Your task to perform on an android device: Show me productivity apps on the Play Store Image 0: 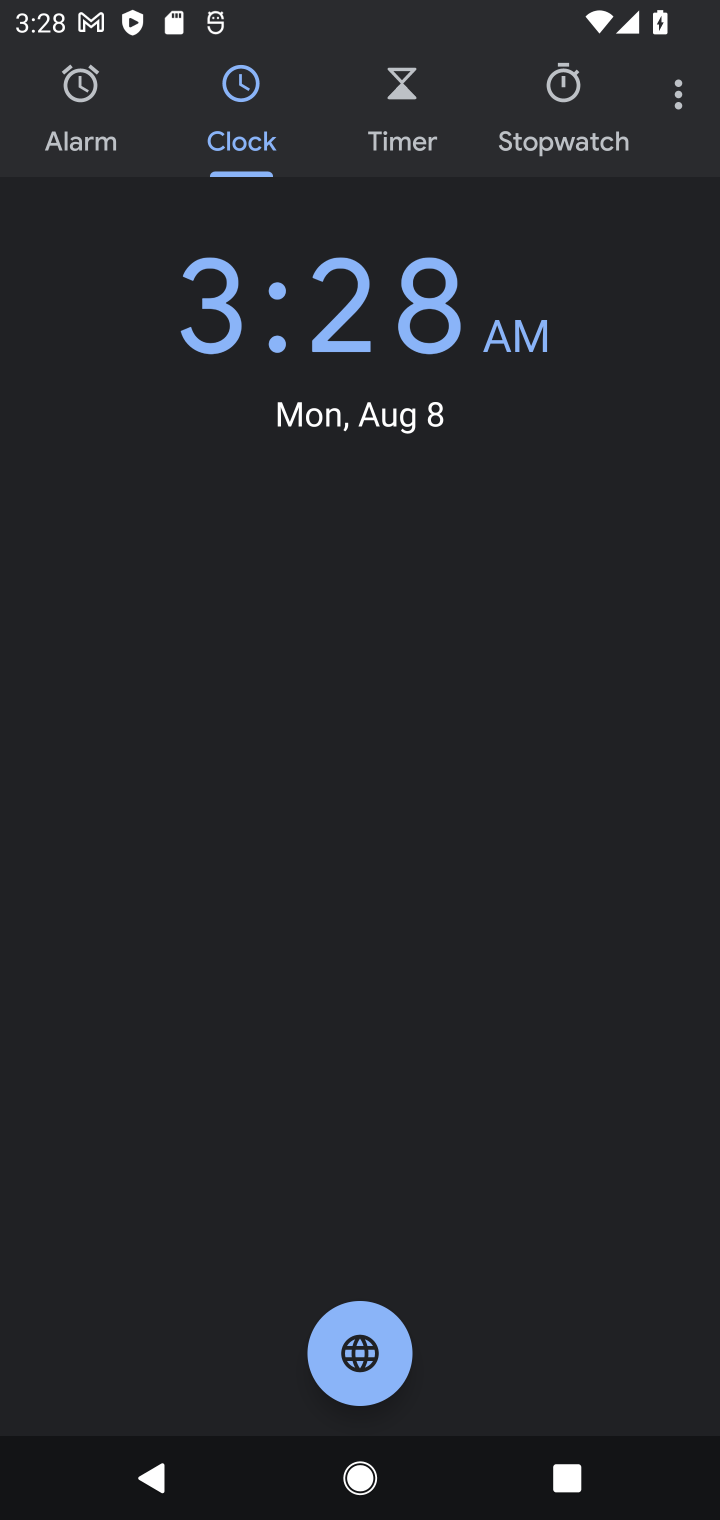
Step 0: press home button
Your task to perform on an android device: Show me productivity apps on the Play Store Image 1: 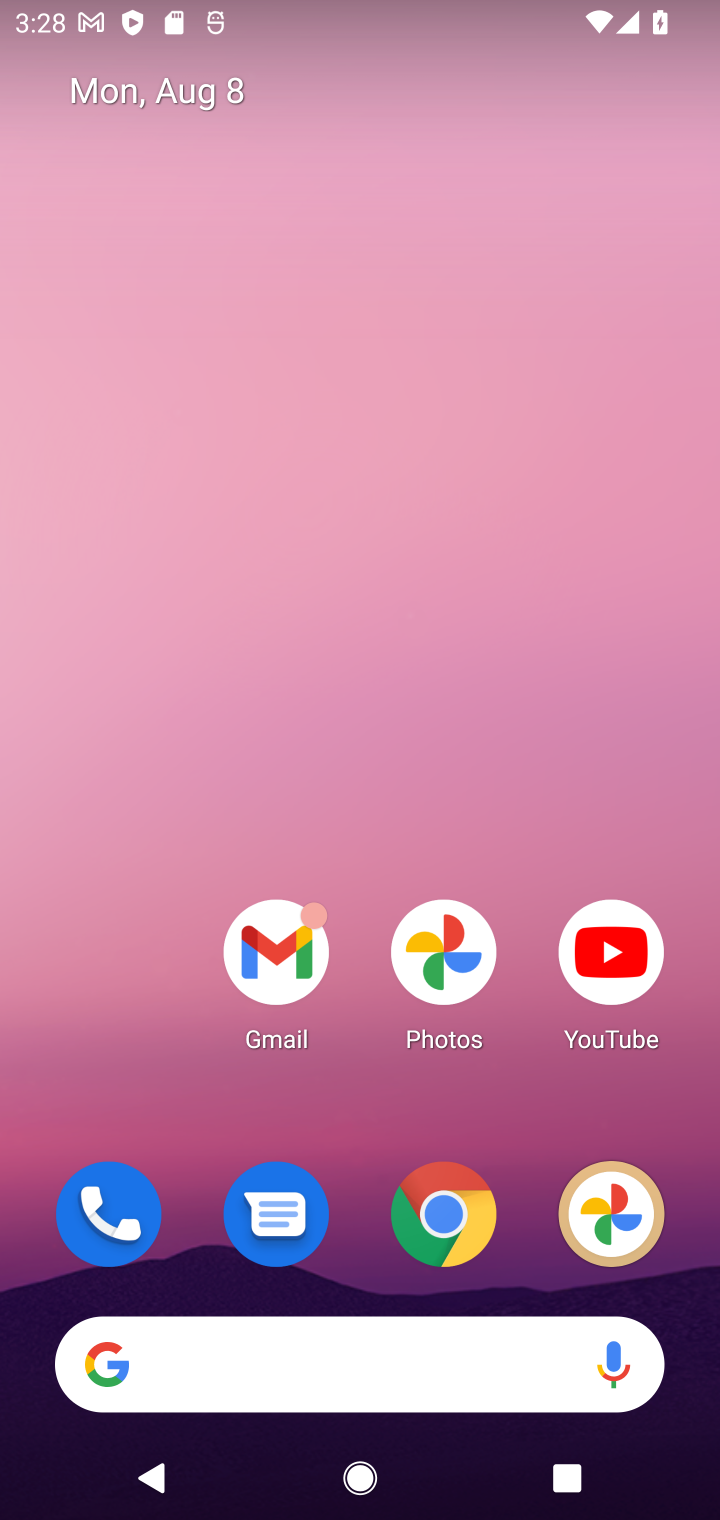
Step 1: drag from (365, 1279) to (376, 540)
Your task to perform on an android device: Show me productivity apps on the Play Store Image 2: 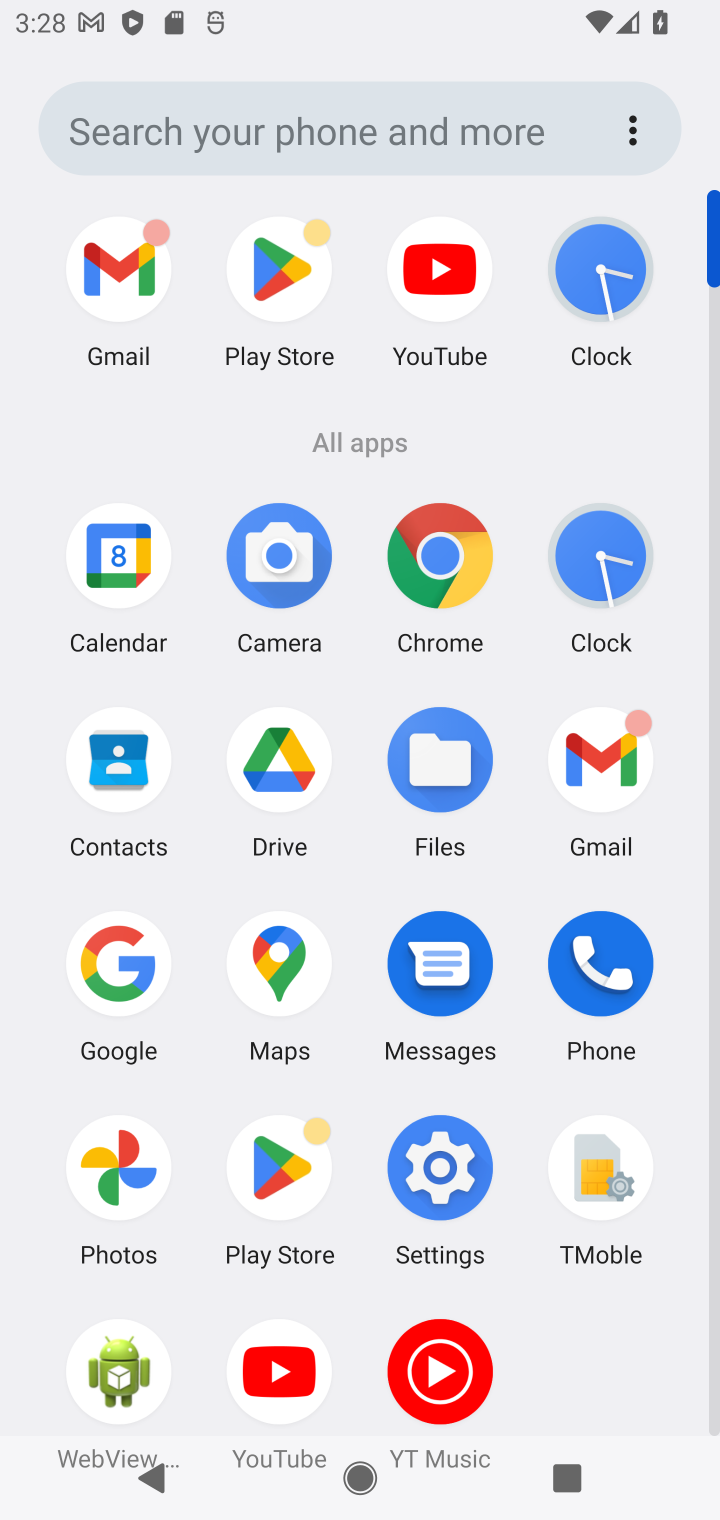
Step 2: click (290, 1179)
Your task to perform on an android device: Show me productivity apps on the Play Store Image 3: 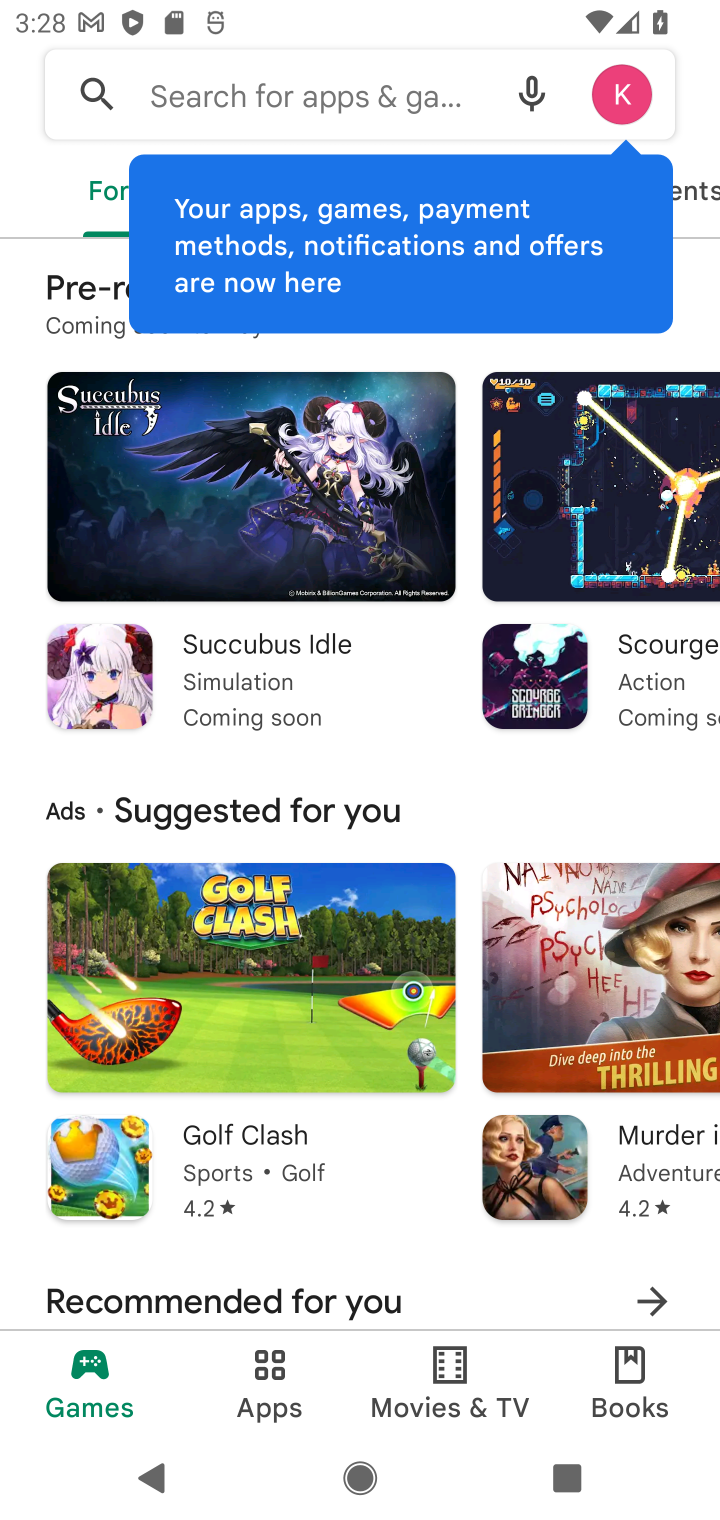
Step 3: click (262, 1384)
Your task to perform on an android device: Show me productivity apps on the Play Store Image 4: 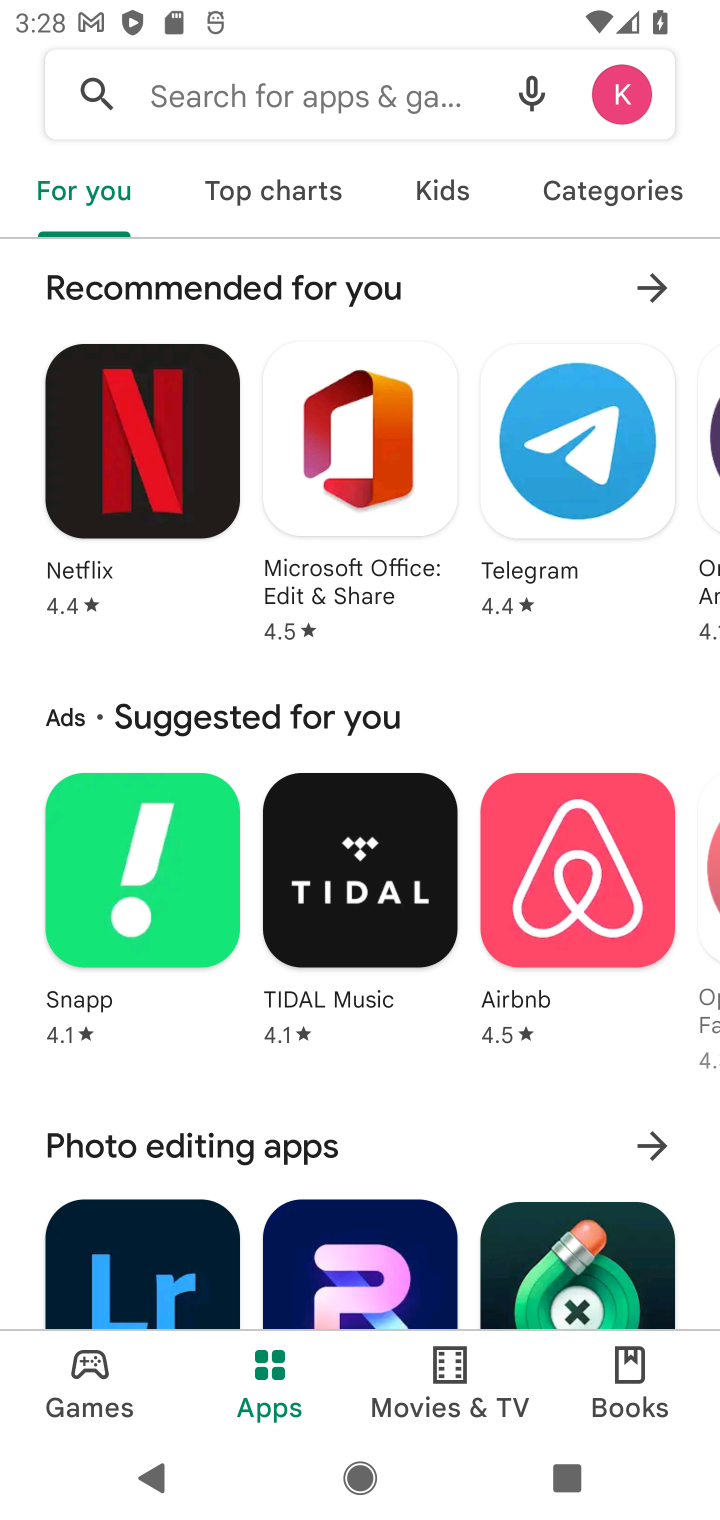
Step 4: click (563, 170)
Your task to perform on an android device: Show me productivity apps on the Play Store Image 5: 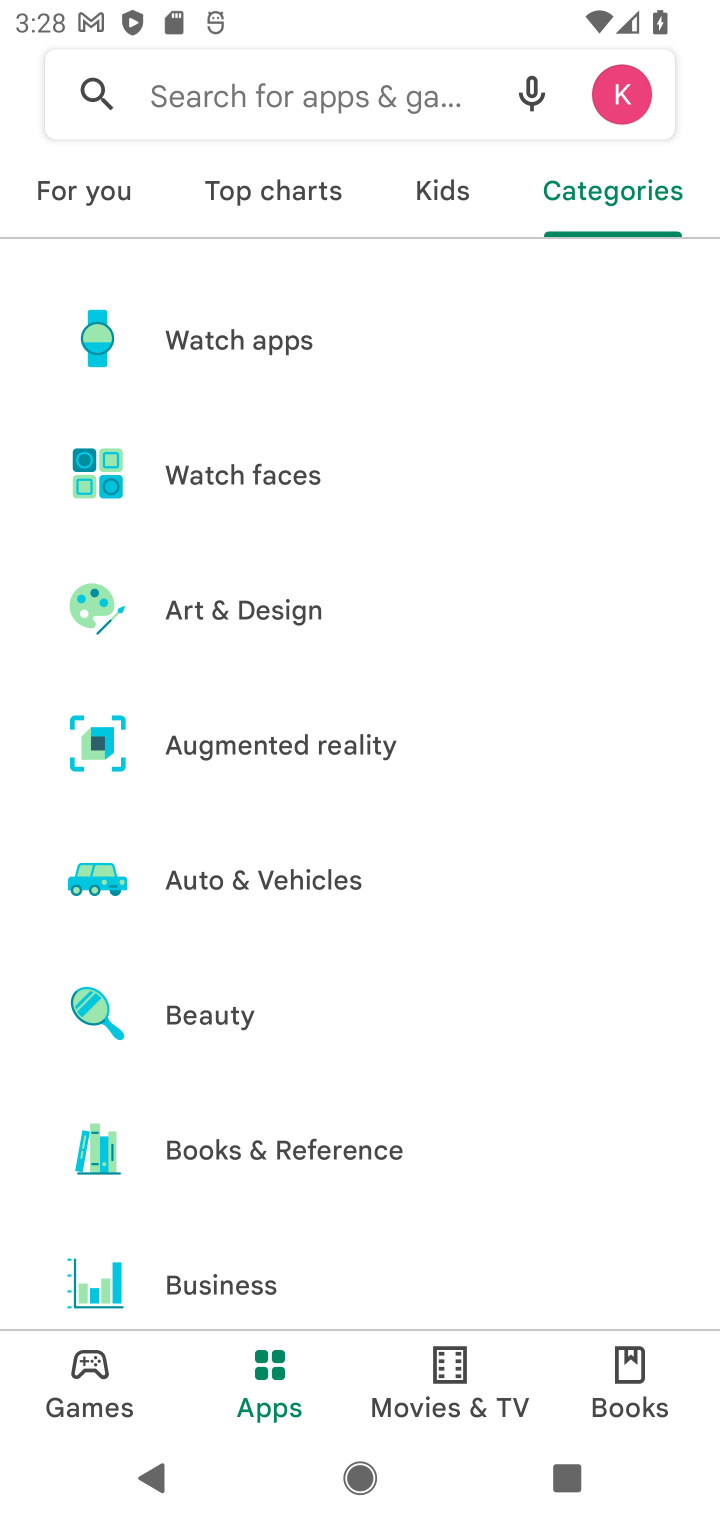
Step 5: drag from (222, 1067) to (222, 767)
Your task to perform on an android device: Show me productivity apps on the Play Store Image 6: 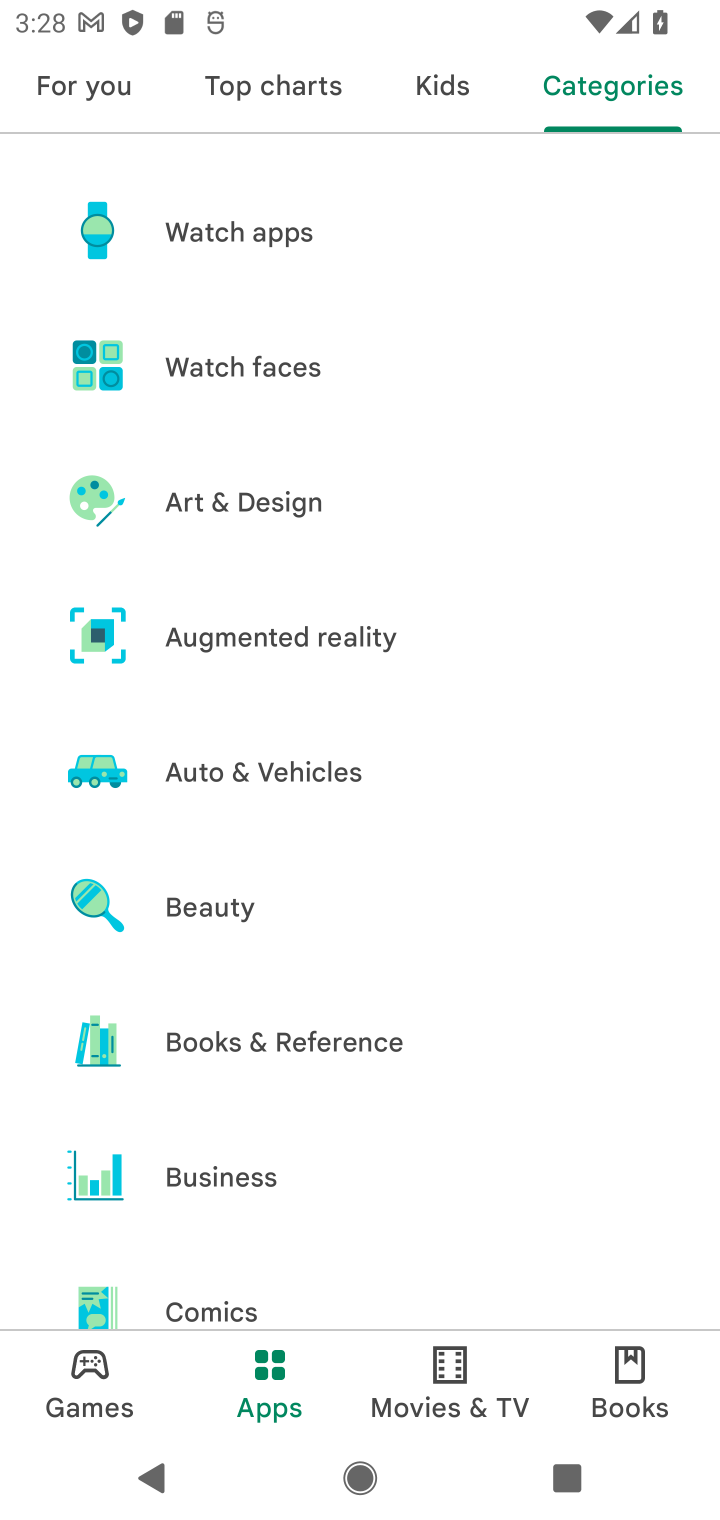
Step 6: drag from (259, 1189) to (266, 595)
Your task to perform on an android device: Show me productivity apps on the Play Store Image 7: 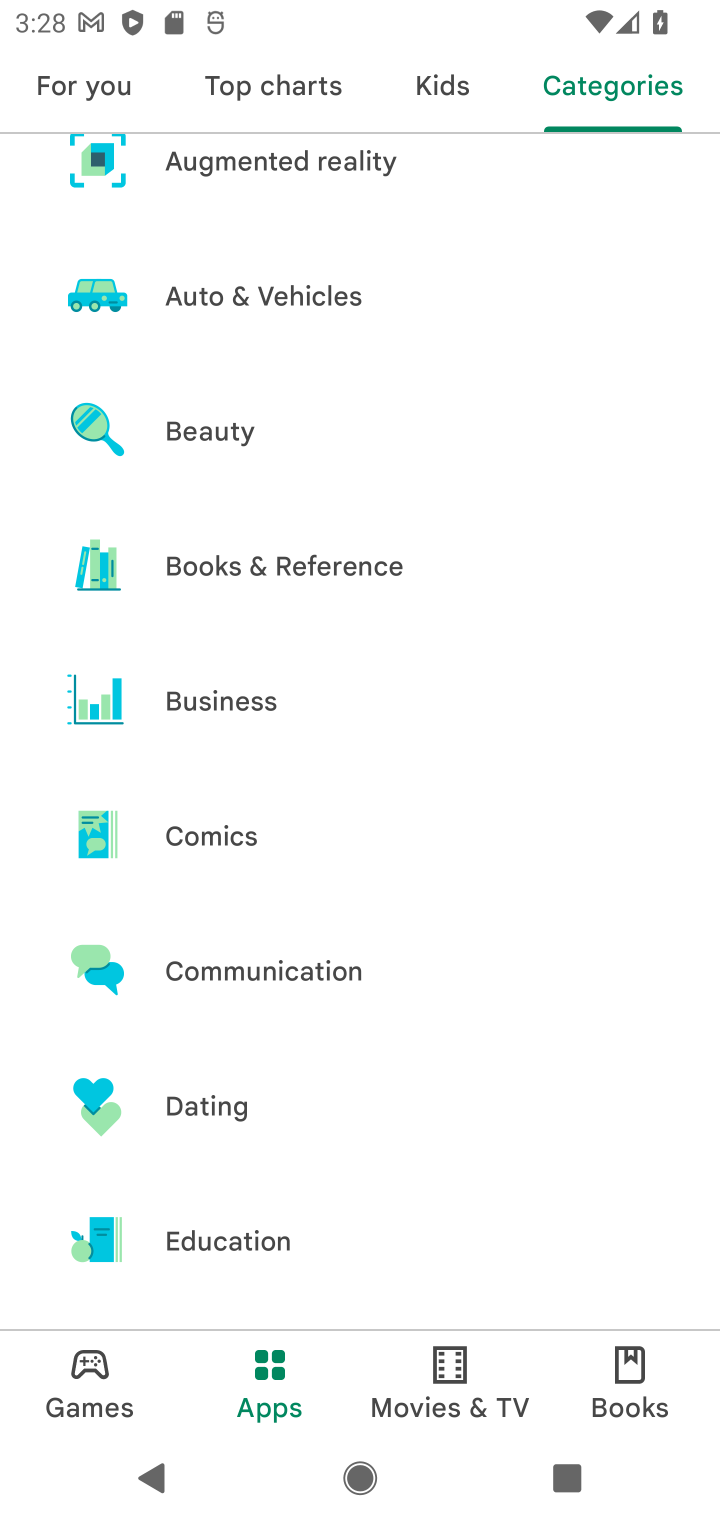
Step 7: drag from (251, 1095) to (251, 470)
Your task to perform on an android device: Show me productivity apps on the Play Store Image 8: 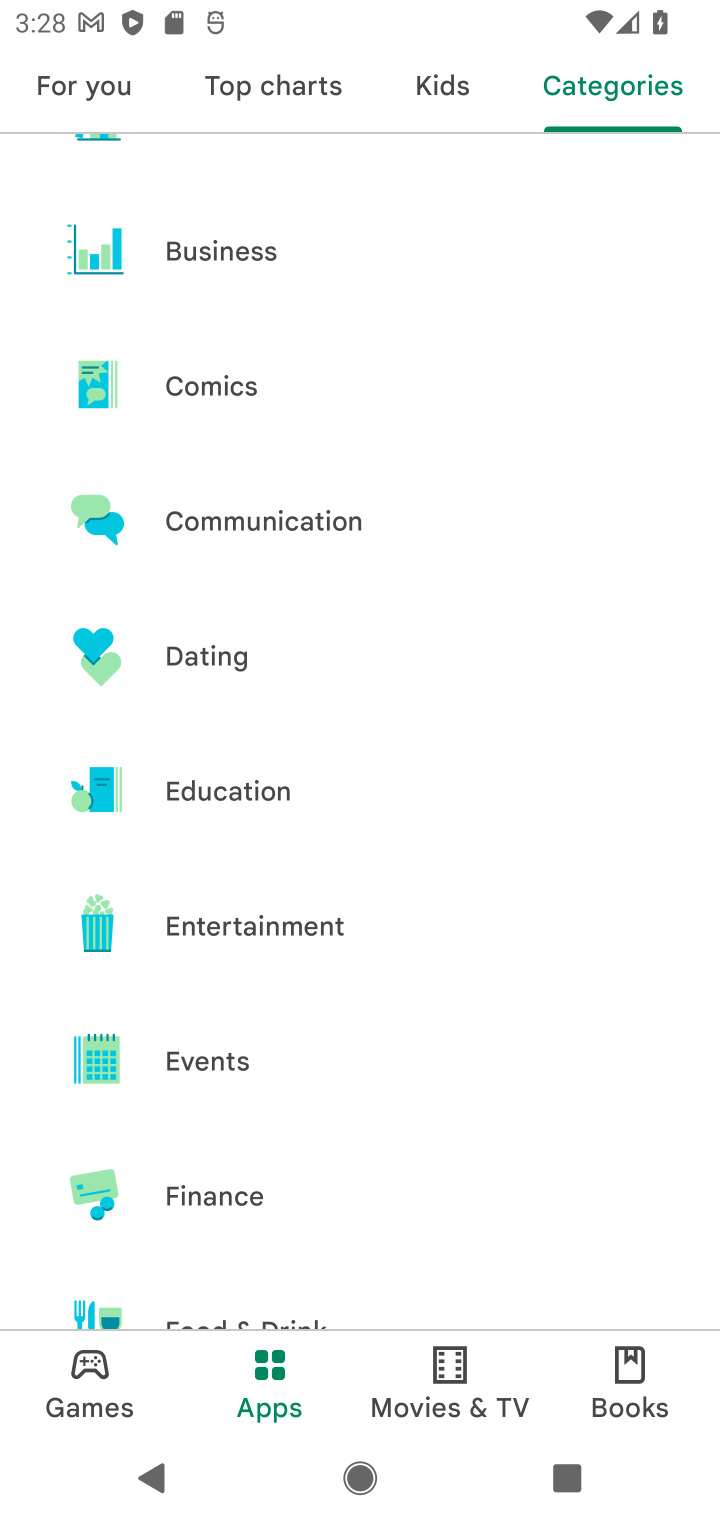
Step 8: drag from (254, 940) to (254, 477)
Your task to perform on an android device: Show me productivity apps on the Play Store Image 9: 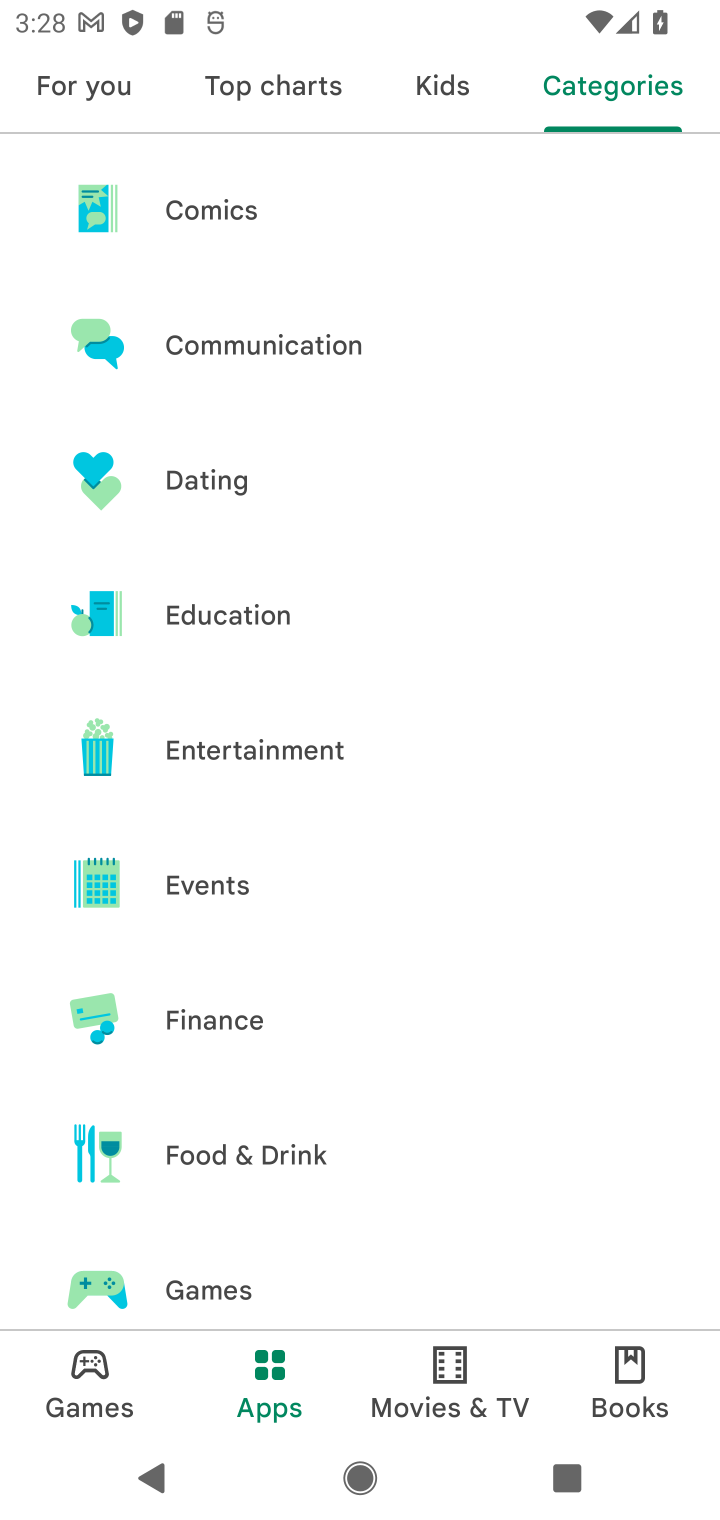
Step 9: drag from (215, 1173) to (193, 585)
Your task to perform on an android device: Show me productivity apps on the Play Store Image 10: 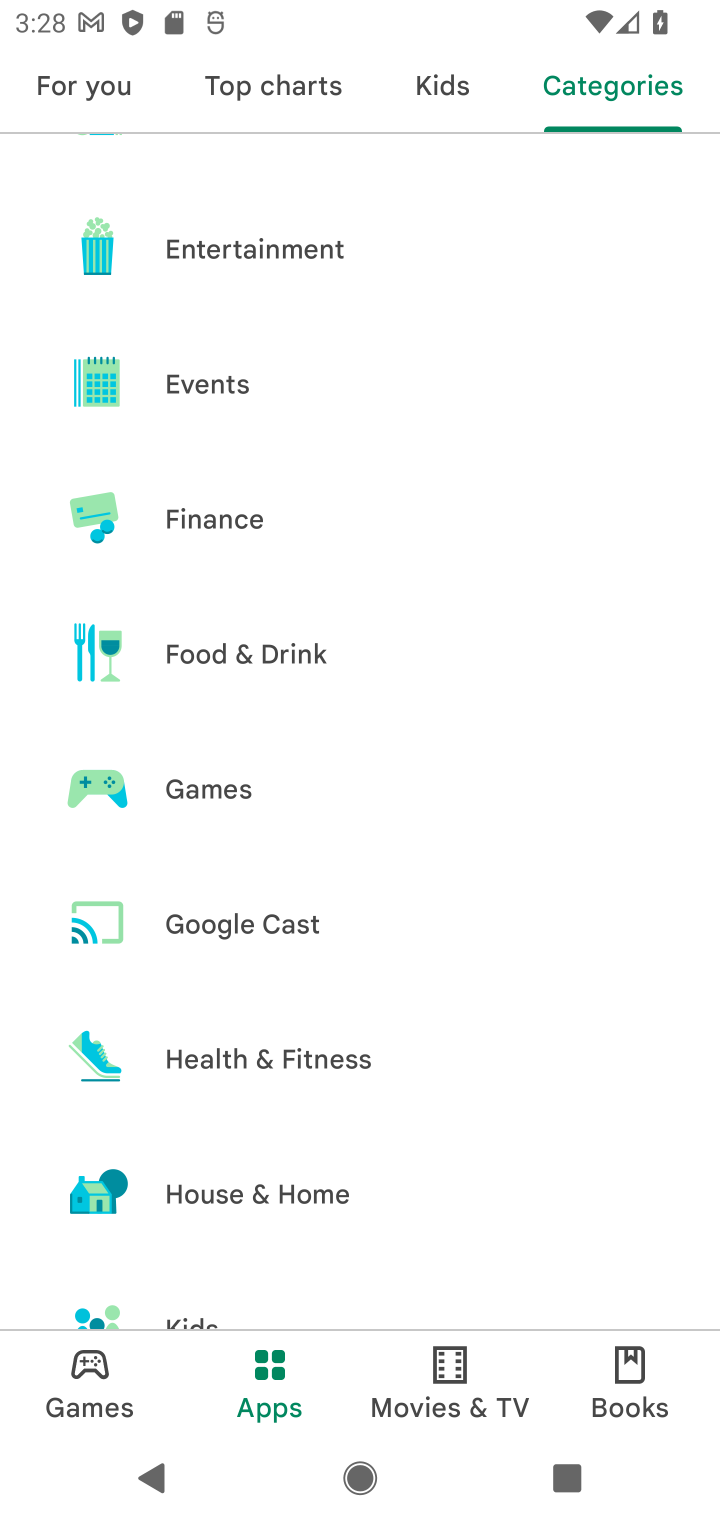
Step 10: drag from (265, 1158) to (265, 653)
Your task to perform on an android device: Show me productivity apps on the Play Store Image 11: 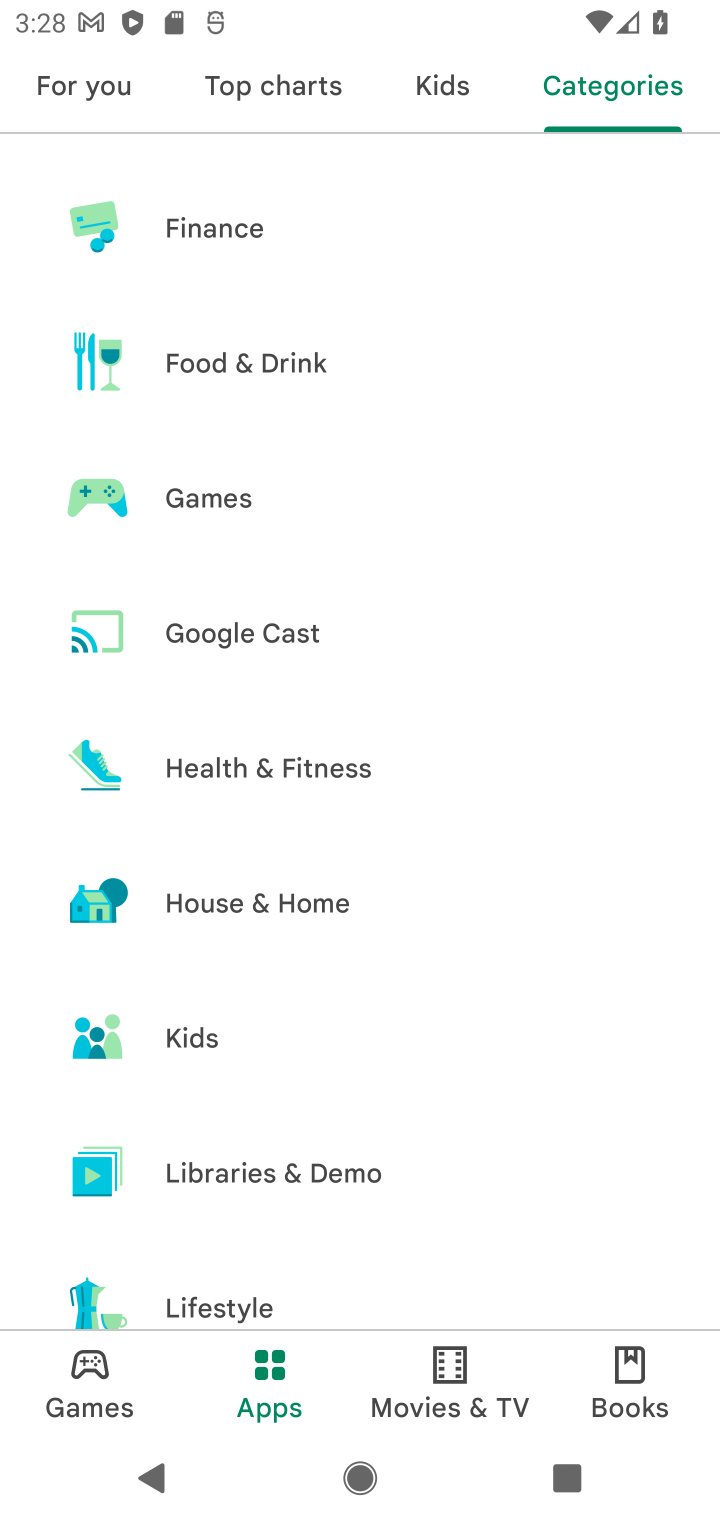
Step 11: drag from (239, 1187) to (201, 588)
Your task to perform on an android device: Show me productivity apps on the Play Store Image 12: 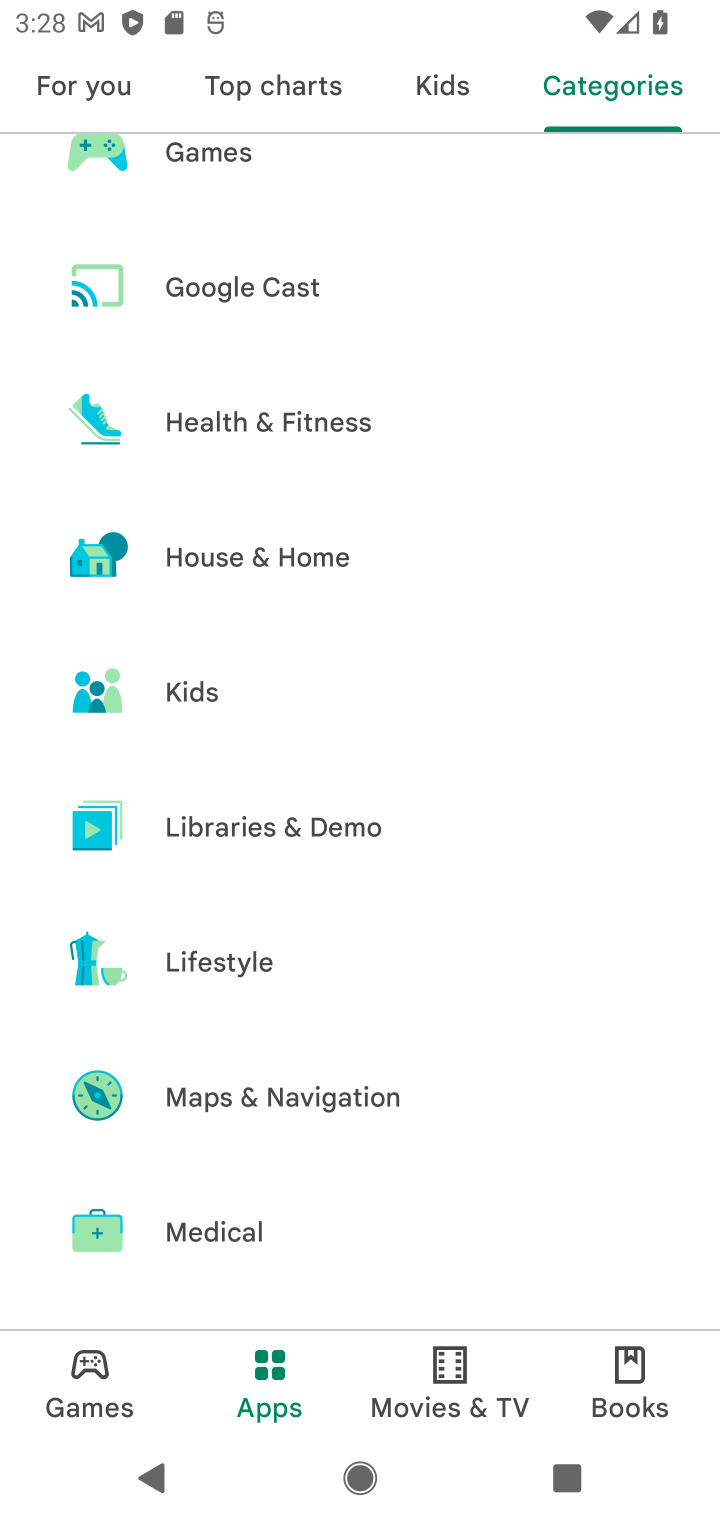
Step 12: drag from (228, 1240) to (232, 510)
Your task to perform on an android device: Show me productivity apps on the Play Store Image 13: 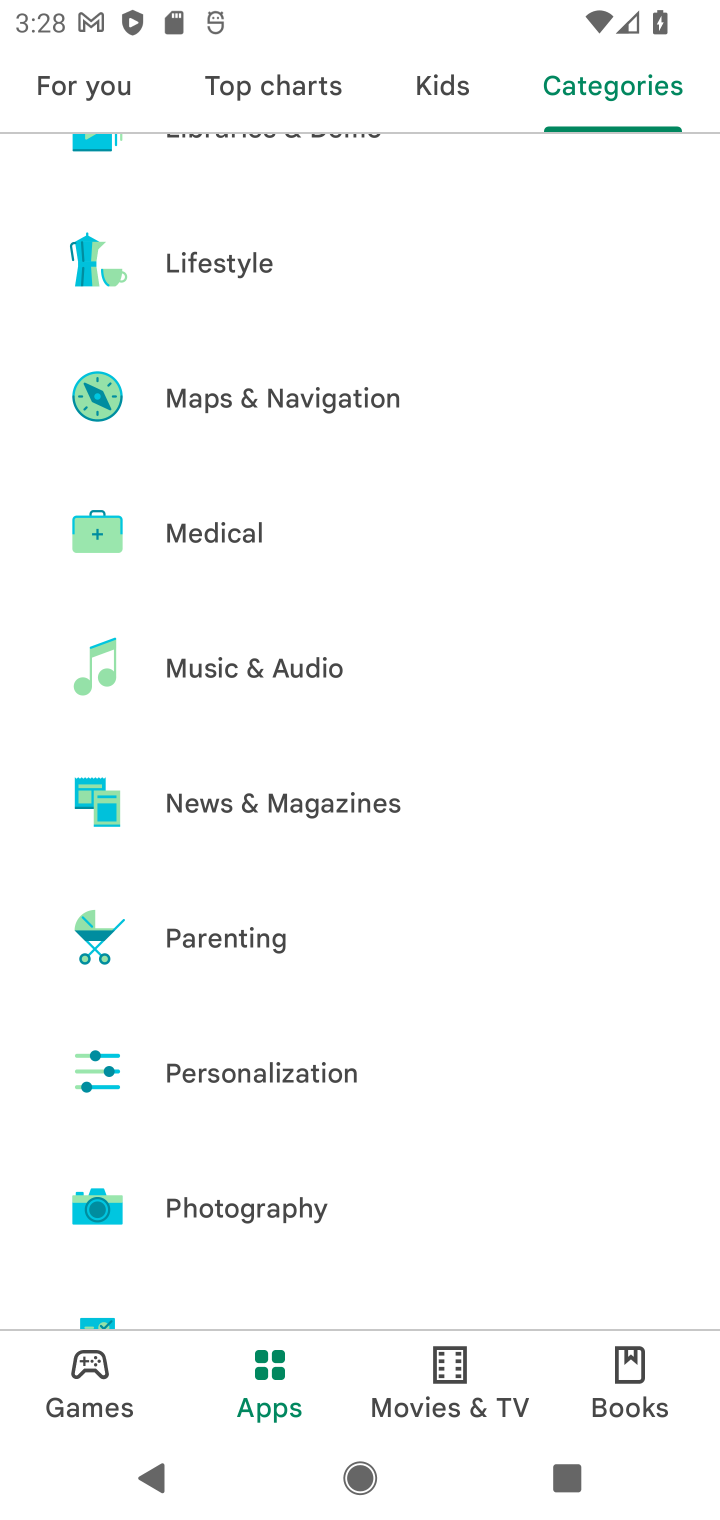
Step 13: drag from (226, 972) to (209, 407)
Your task to perform on an android device: Show me productivity apps on the Play Store Image 14: 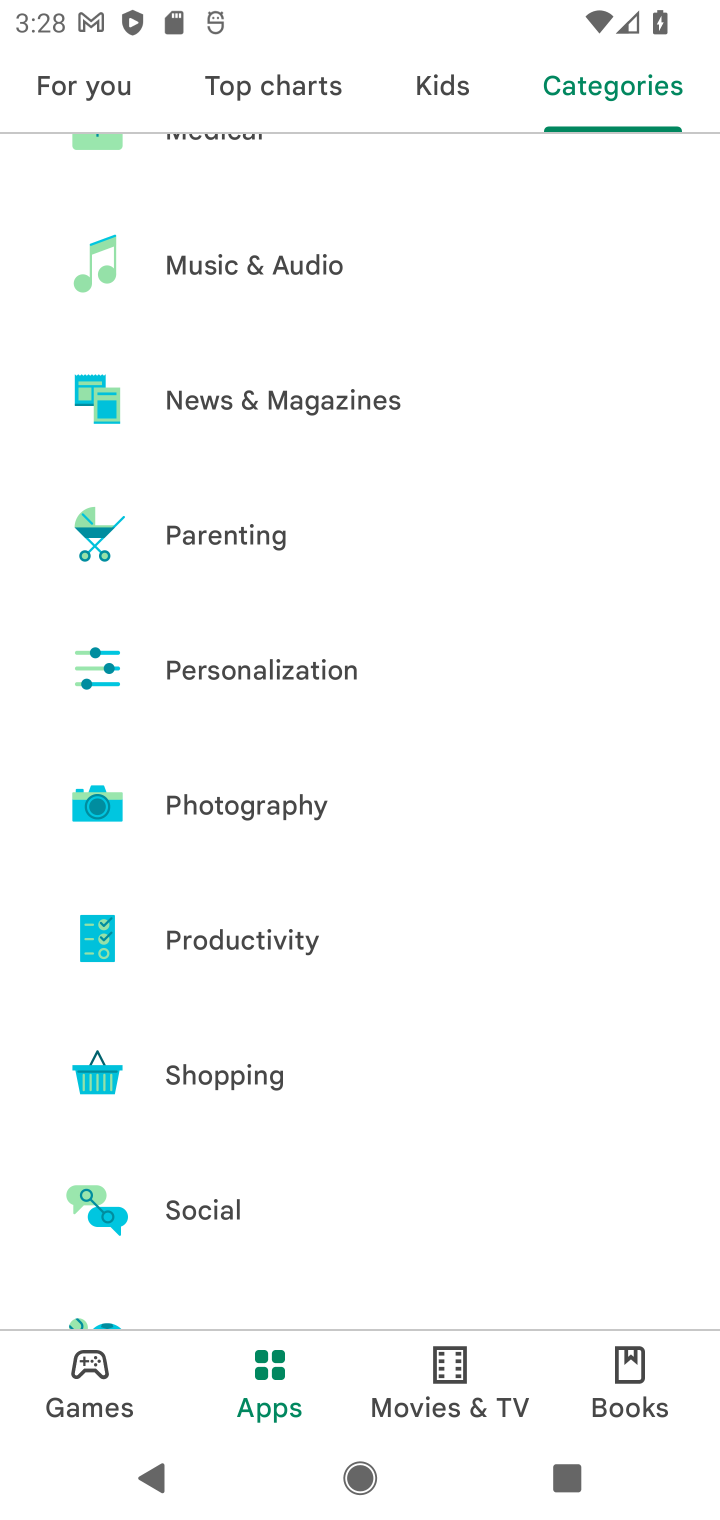
Step 14: click (236, 939)
Your task to perform on an android device: Show me productivity apps on the Play Store Image 15: 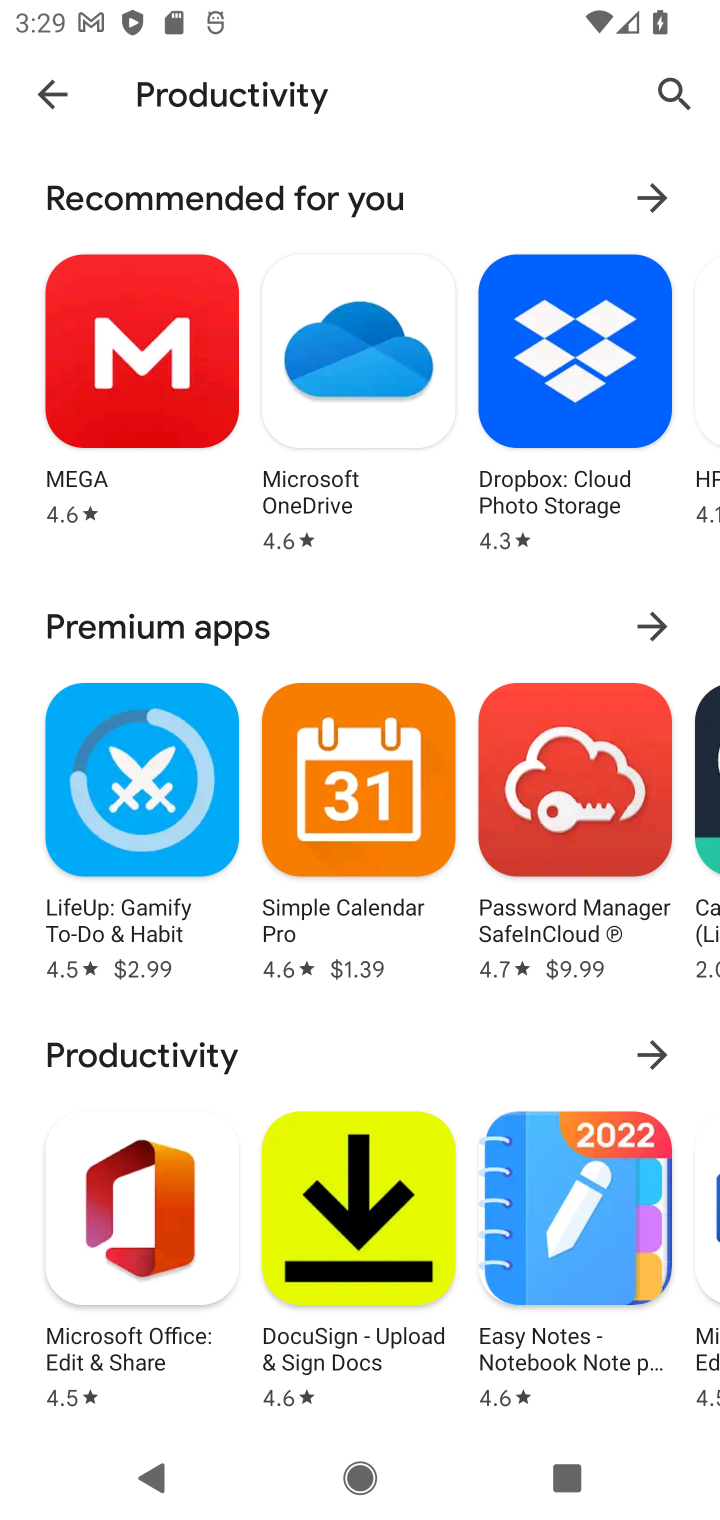
Step 15: task complete